Your task to perform on an android device: turn pop-ups off in chrome Image 0: 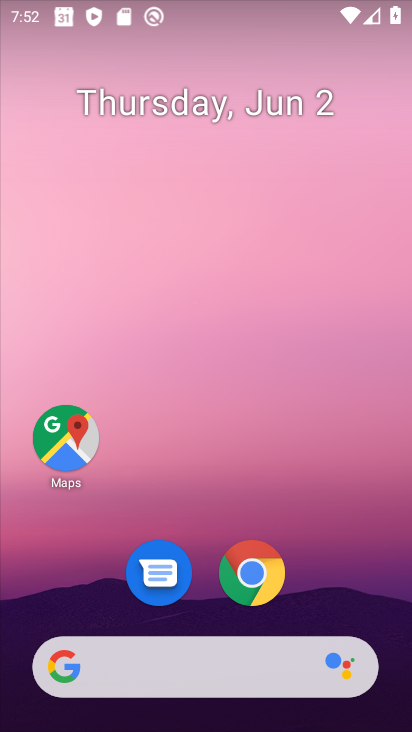
Step 0: drag from (328, 500) to (131, 16)
Your task to perform on an android device: turn pop-ups off in chrome Image 1: 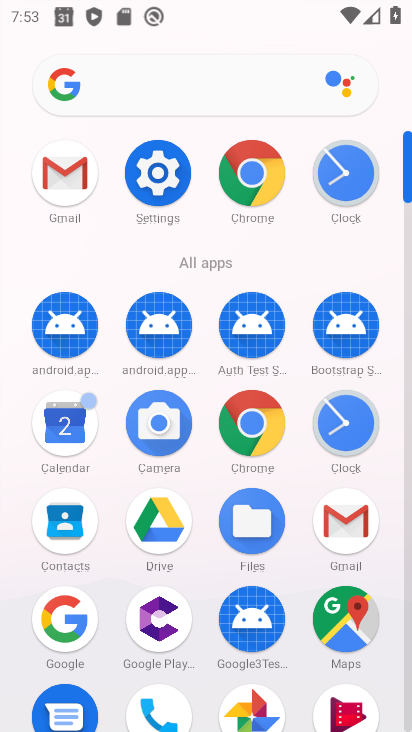
Step 1: click (261, 171)
Your task to perform on an android device: turn pop-ups off in chrome Image 2: 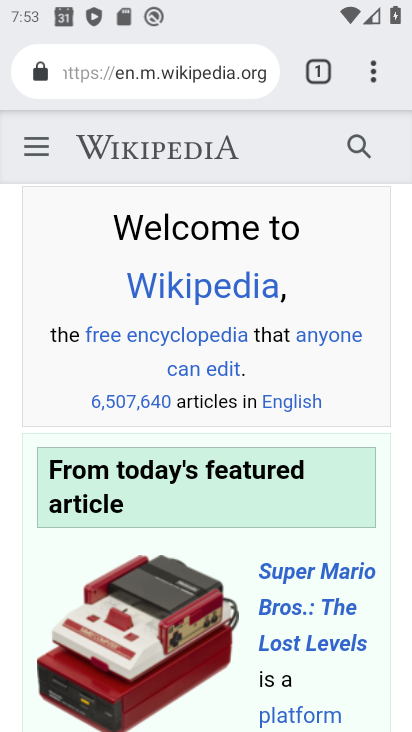
Step 2: drag from (369, 79) to (139, 574)
Your task to perform on an android device: turn pop-ups off in chrome Image 3: 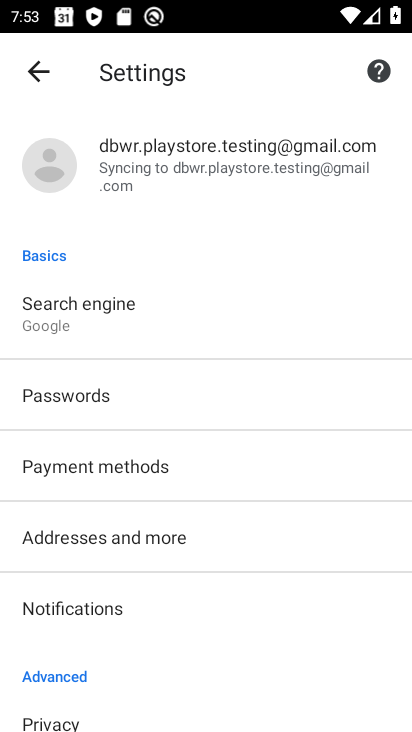
Step 3: drag from (203, 618) to (299, 205)
Your task to perform on an android device: turn pop-ups off in chrome Image 4: 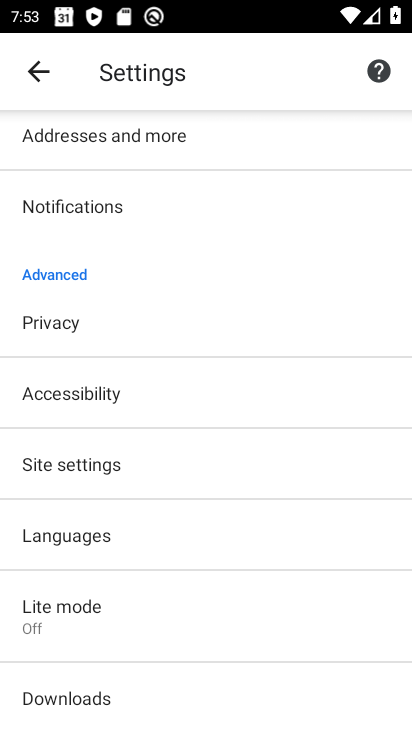
Step 4: drag from (125, 646) to (166, 258)
Your task to perform on an android device: turn pop-ups off in chrome Image 5: 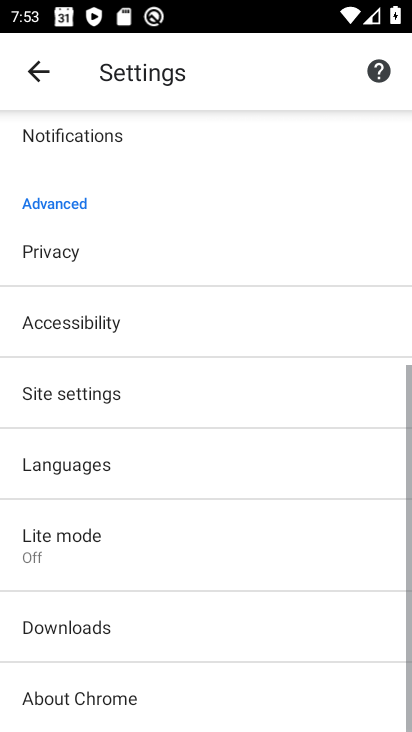
Step 5: drag from (170, 271) to (227, 601)
Your task to perform on an android device: turn pop-ups off in chrome Image 6: 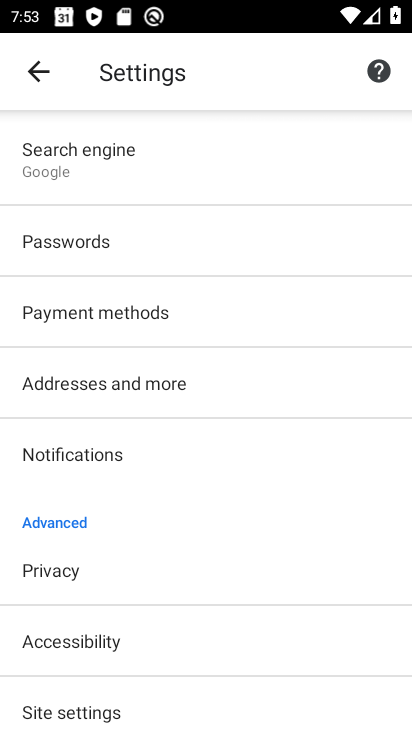
Step 6: drag from (133, 682) to (168, 382)
Your task to perform on an android device: turn pop-ups off in chrome Image 7: 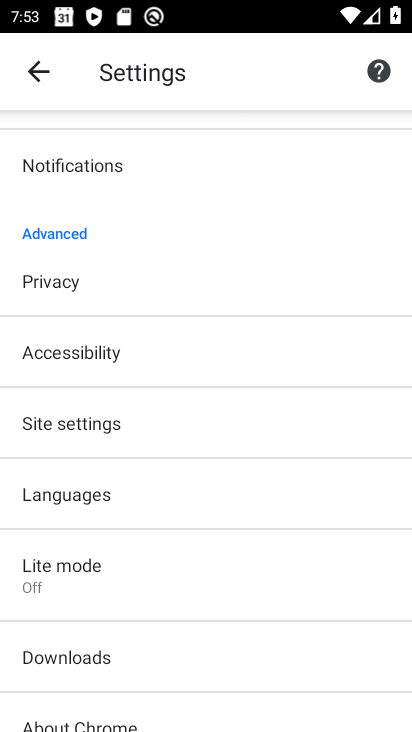
Step 7: click (102, 419)
Your task to perform on an android device: turn pop-ups off in chrome Image 8: 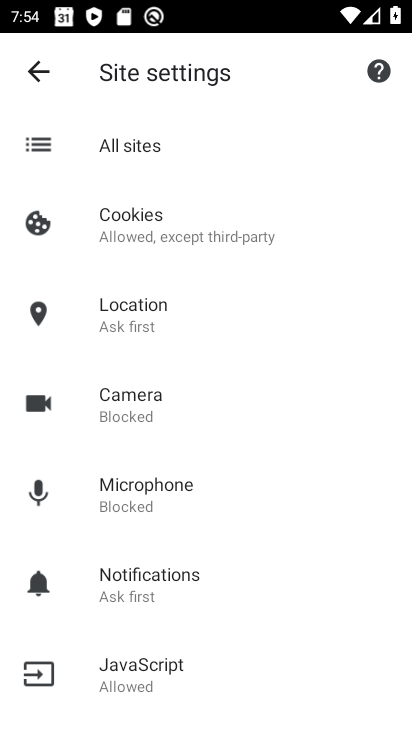
Step 8: drag from (182, 612) to (101, 195)
Your task to perform on an android device: turn pop-ups off in chrome Image 9: 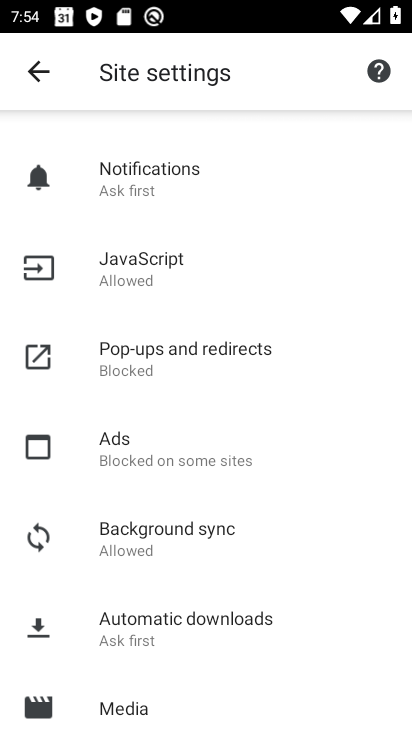
Step 9: click (123, 354)
Your task to perform on an android device: turn pop-ups off in chrome Image 10: 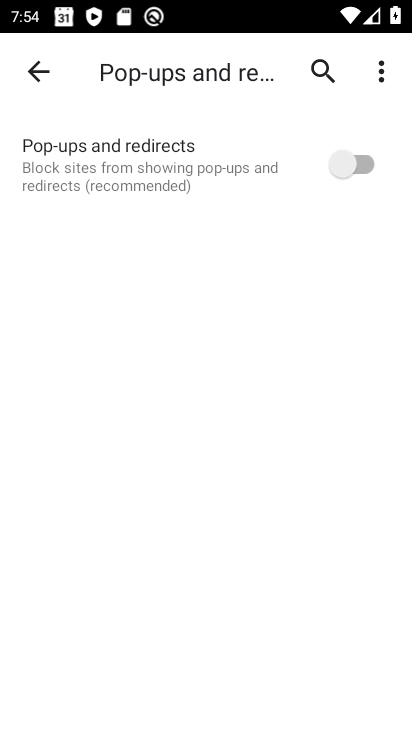
Step 10: task complete